Your task to perform on an android device: turn notification dots off Image 0: 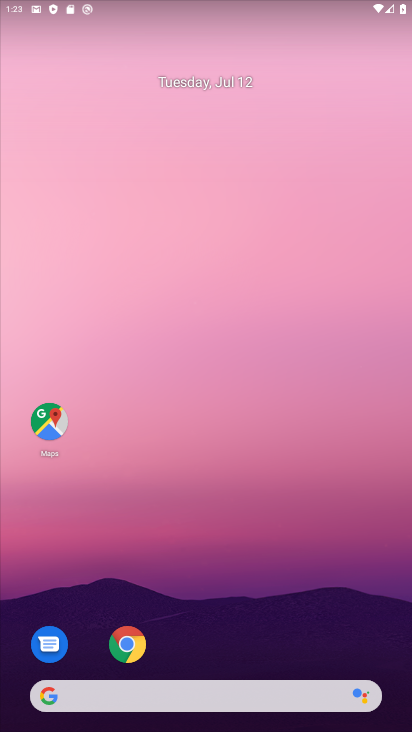
Step 0: drag from (198, 480) to (248, 0)
Your task to perform on an android device: turn notification dots off Image 1: 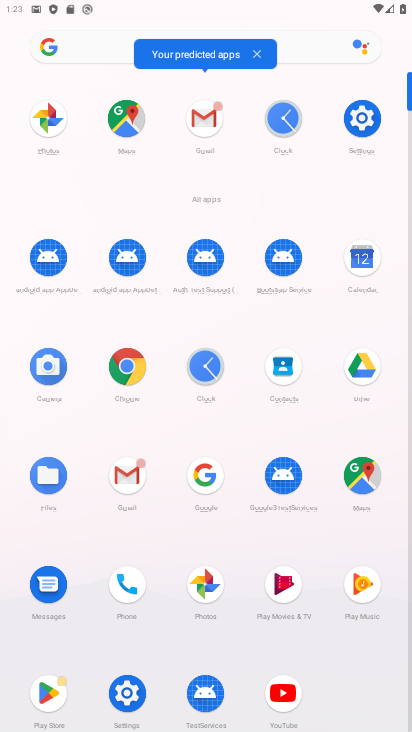
Step 1: click (349, 115)
Your task to perform on an android device: turn notification dots off Image 2: 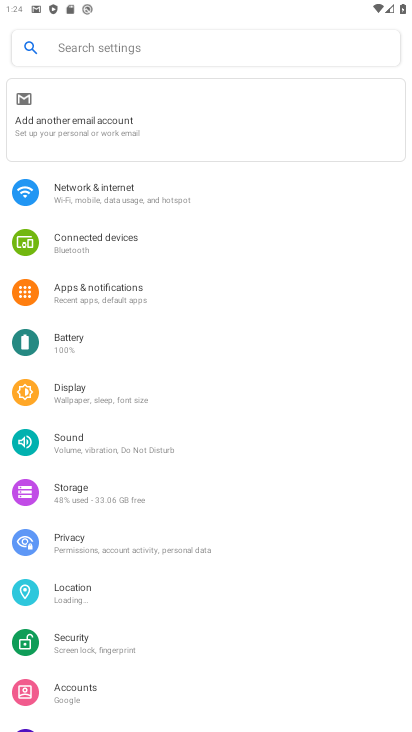
Step 2: click (90, 297)
Your task to perform on an android device: turn notification dots off Image 3: 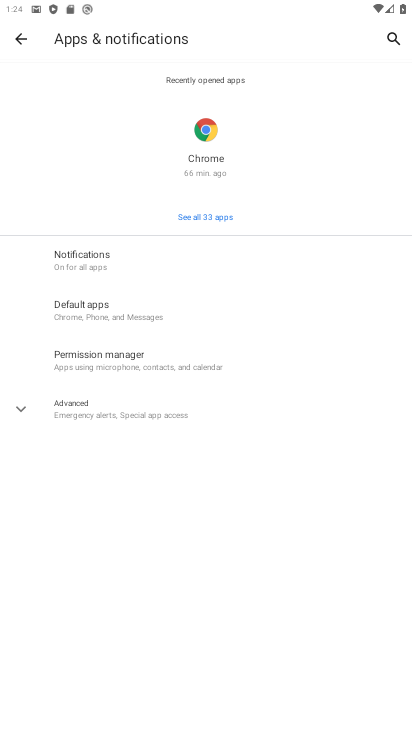
Step 3: click (165, 246)
Your task to perform on an android device: turn notification dots off Image 4: 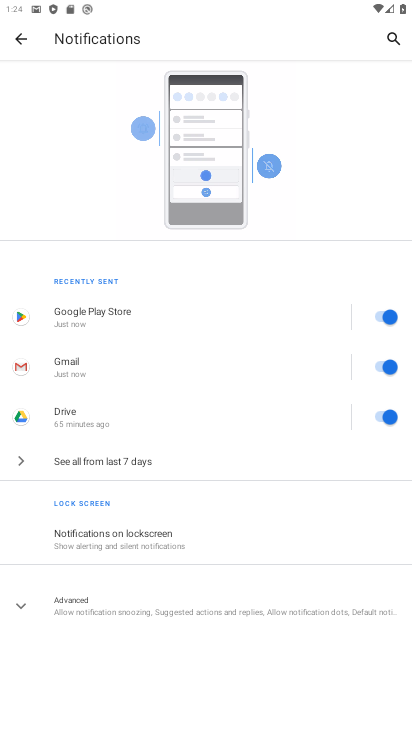
Step 4: click (112, 605)
Your task to perform on an android device: turn notification dots off Image 5: 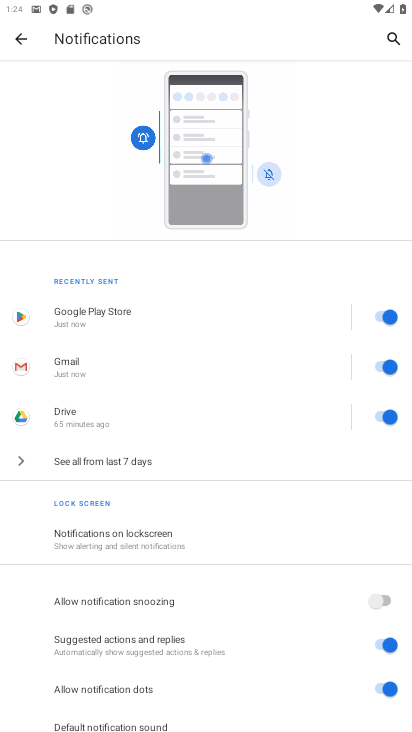
Step 5: click (379, 687)
Your task to perform on an android device: turn notification dots off Image 6: 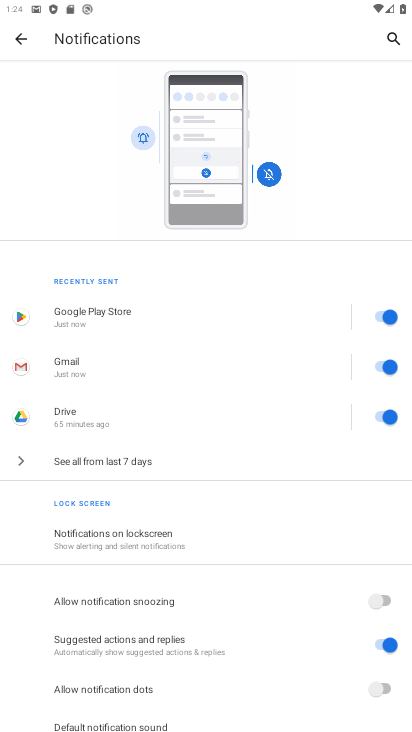
Step 6: task complete